Your task to perform on an android device: show emergency info Image 0: 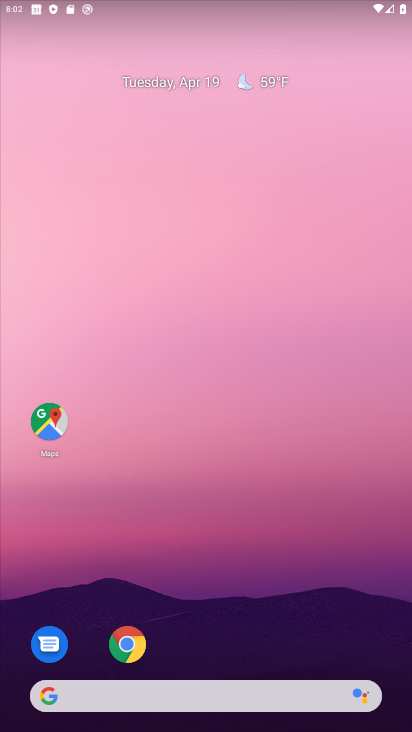
Step 0: drag from (211, 397) to (235, 184)
Your task to perform on an android device: show emergency info Image 1: 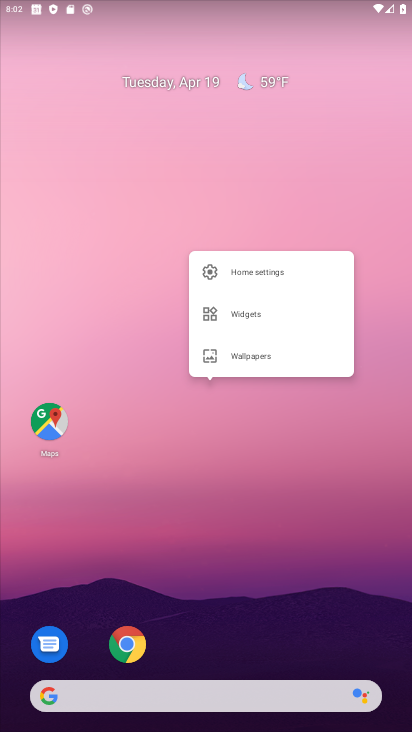
Step 1: drag from (215, 550) to (288, 181)
Your task to perform on an android device: show emergency info Image 2: 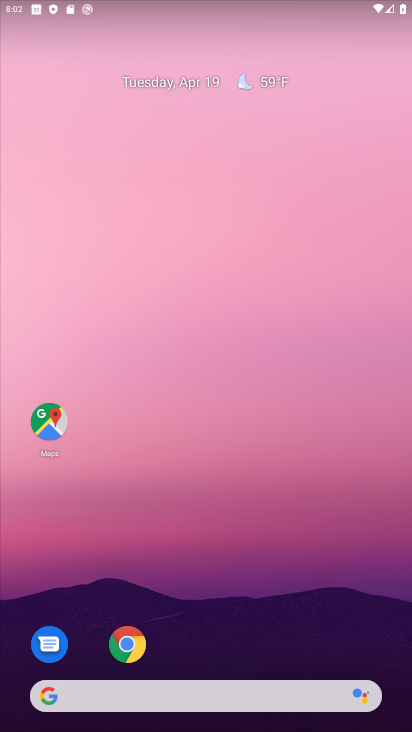
Step 2: drag from (268, 272) to (273, 217)
Your task to perform on an android device: show emergency info Image 3: 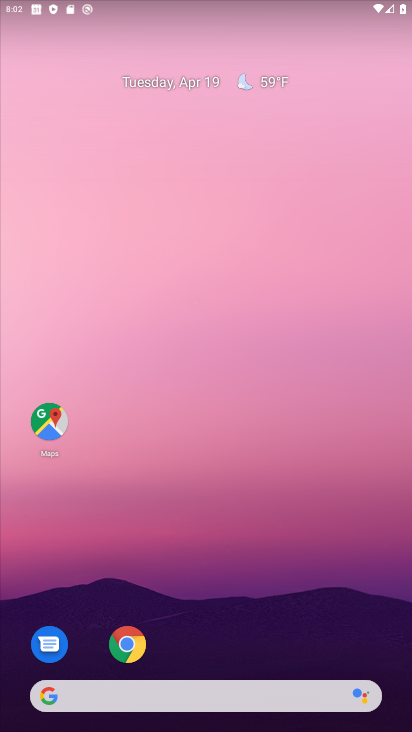
Step 3: drag from (213, 645) to (254, 141)
Your task to perform on an android device: show emergency info Image 4: 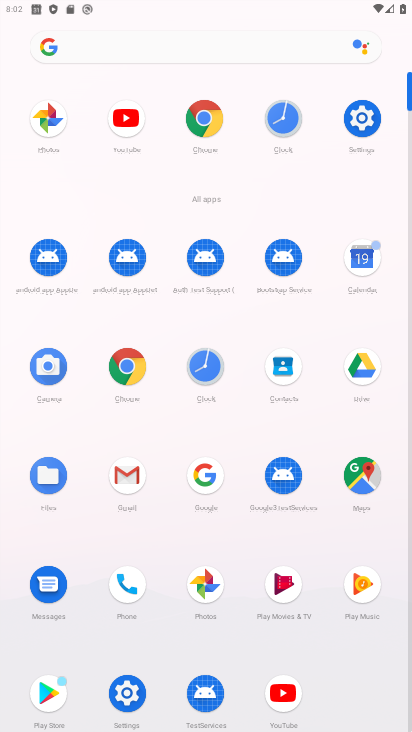
Step 4: click (363, 117)
Your task to perform on an android device: show emergency info Image 5: 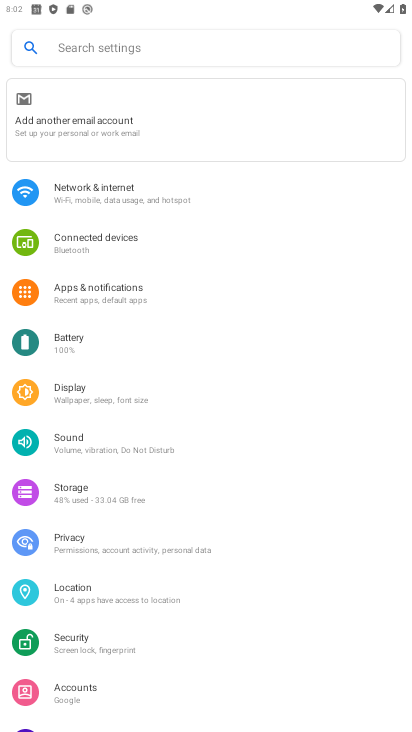
Step 5: click (120, 44)
Your task to perform on an android device: show emergency info Image 6: 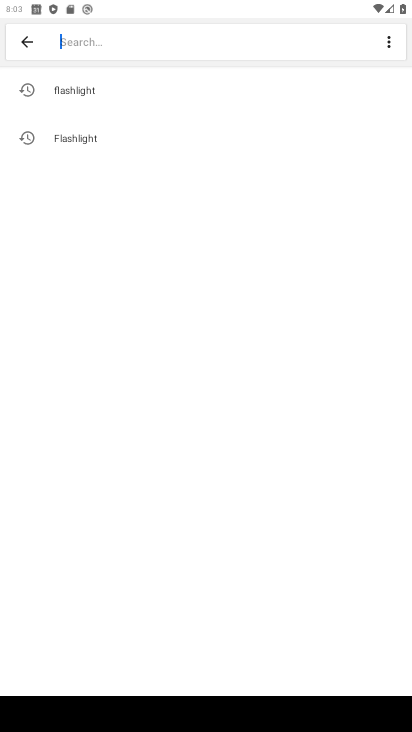
Step 6: type "emergency info"
Your task to perform on an android device: show emergency info Image 7: 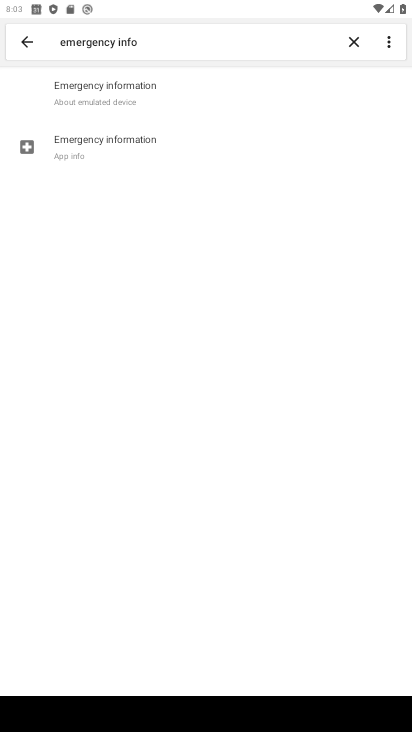
Step 7: click (182, 153)
Your task to perform on an android device: show emergency info Image 8: 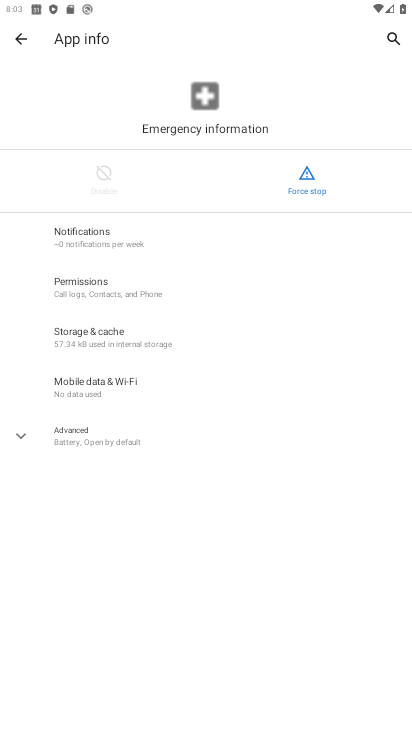
Step 8: task complete